Your task to perform on an android device: toggle priority inbox in the gmail app Image 0: 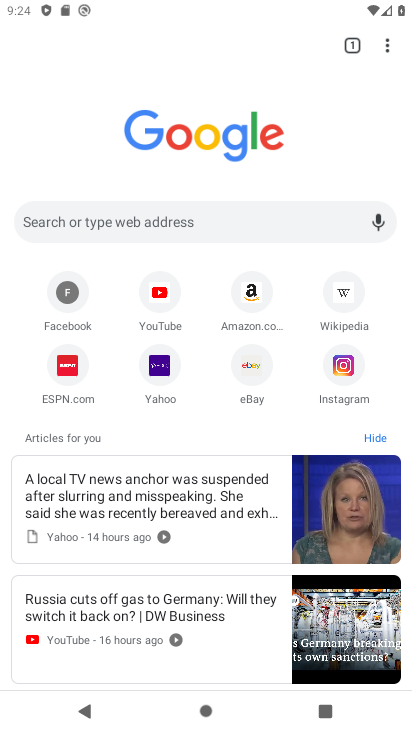
Step 0: press home button
Your task to perform on an android device: toggle priority inbox in the gmail app Image 1: 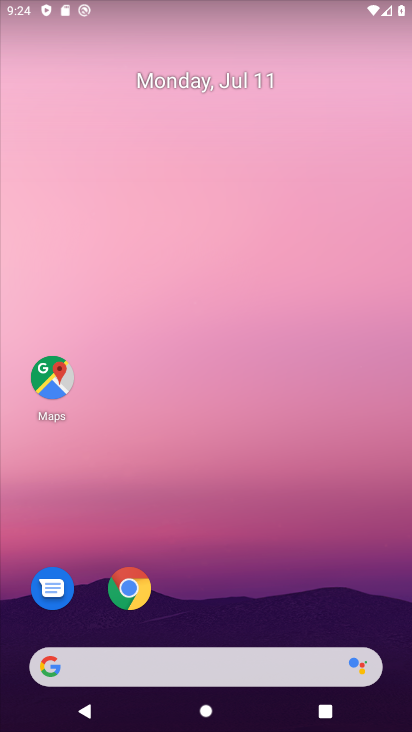
Step 1: drag from (219, 639) to (214, 137)
Your task to perform on an android device: toggle priority inbox in the gmail app Image 2: 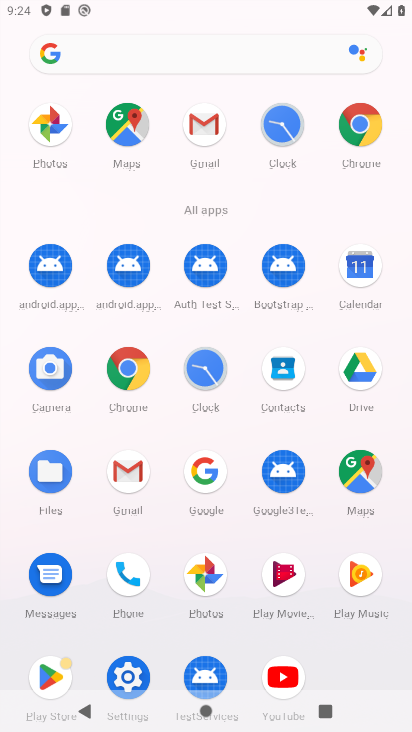
Step 2: click (133, 481)
Your task to perform on an android device: toggle priority inbox in the gmail app Image 3: 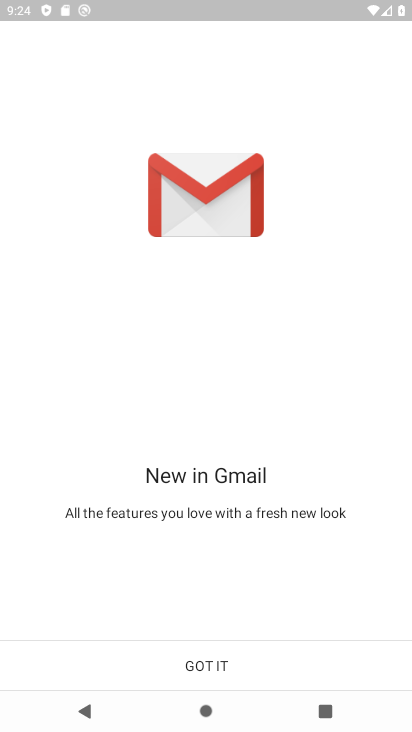
Step 3: click (236, 670)
Your task to perform on an android device: toggle priority inbox in the gmail app Image 4: 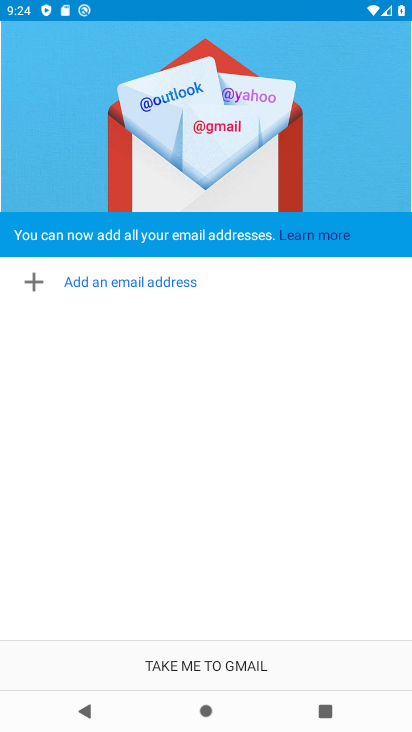
Step 4: click (238, 671)
Your task to perform on an android device: toggle priority inbox in the gmail app Image 5: 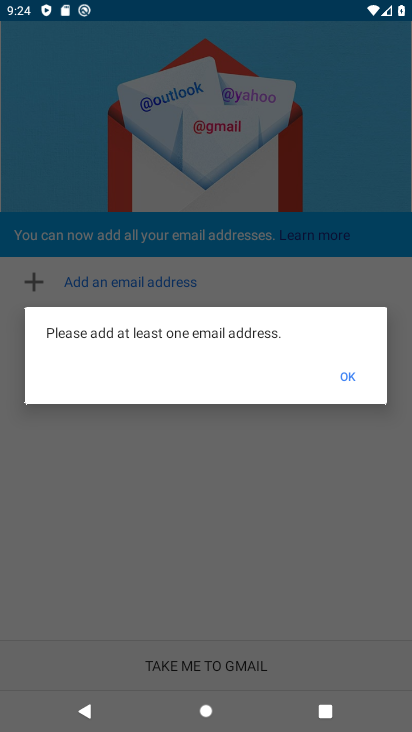
Step 5: task complete